Your task to perform on an android device: Go to Amazon Image 0: 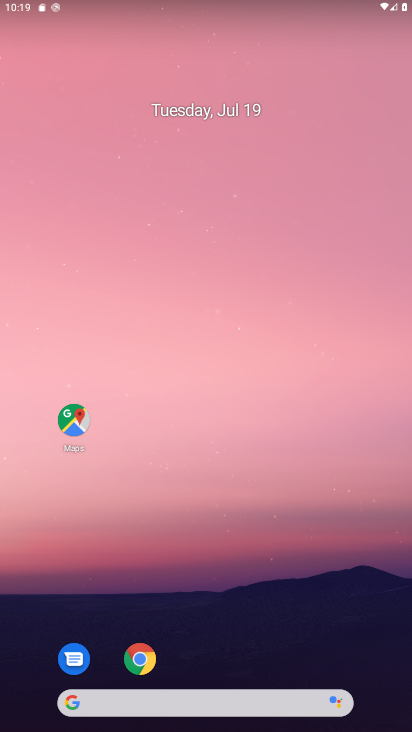
Step 0: drag from (215, 636) to (233, 133)
Your task to perform on an android device: Go to Amazon Image 1: 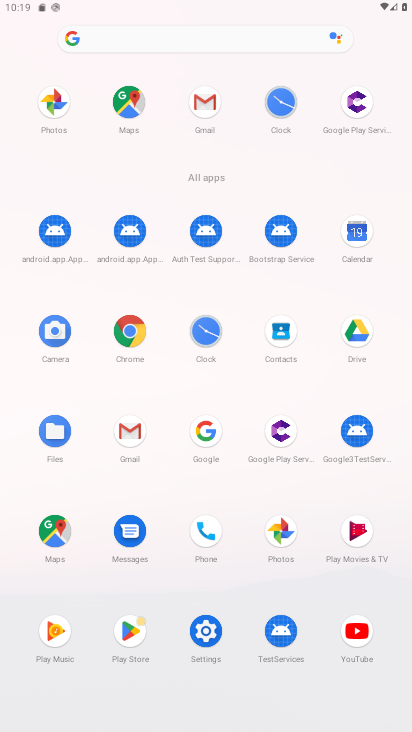
Step 1: click (133, 324)
Your task to perform on an android device: Go to Amazon Image 2: 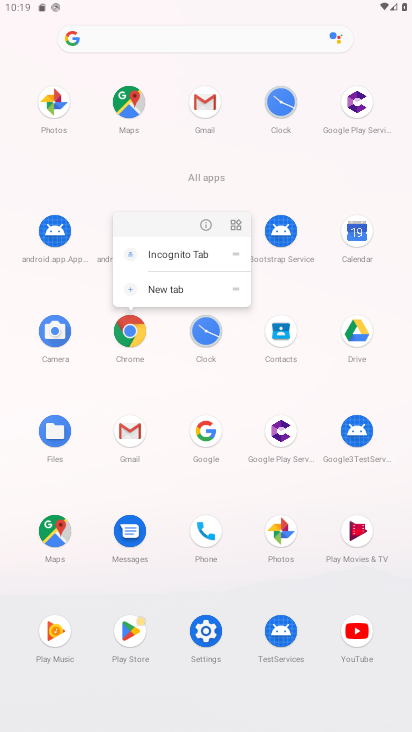
Step 2: click (196, 221)
Your task to perform on an android device: Go to Amazon Image 3: 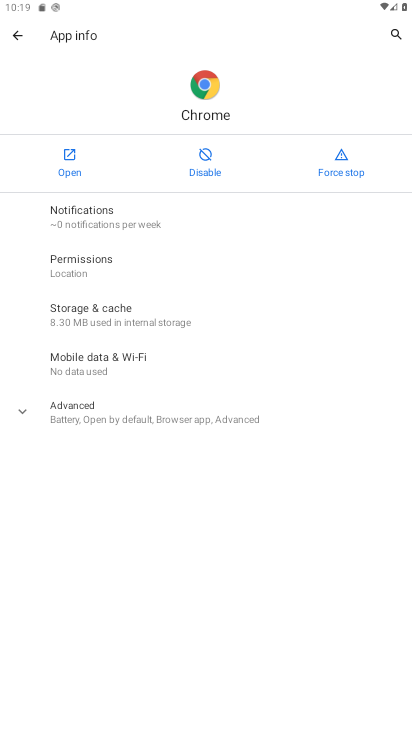
Step 3: click (66, 170)
Your task to perform on an android device: Go to Amazon Image 4: 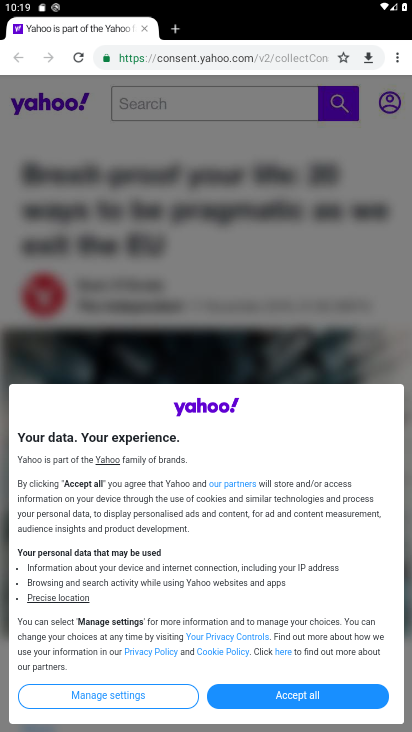
Step 4: click (177, 33)
Your task to perform on an android device: Go to Amazon Image 5: 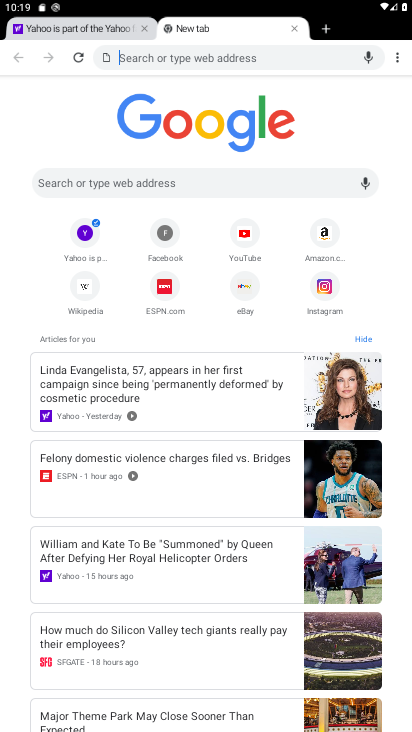
Step 5: click (319, 244)
Your task to perform on an android device: Go to Amazon Image 6: 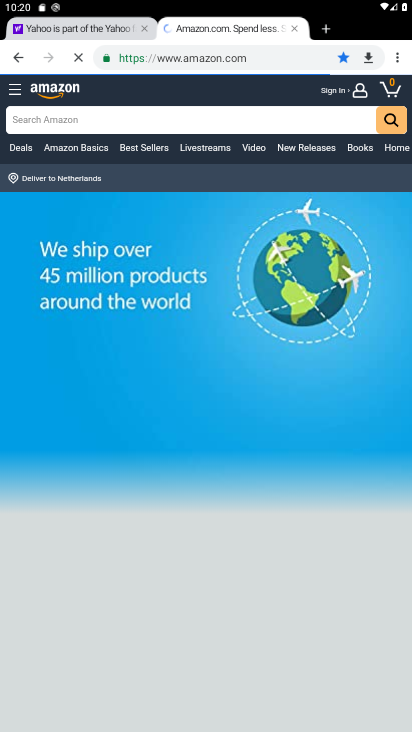
Step 6: task complete